Your task to perform on an android device: Open Google Maps and go to "Timeline" Image 0: 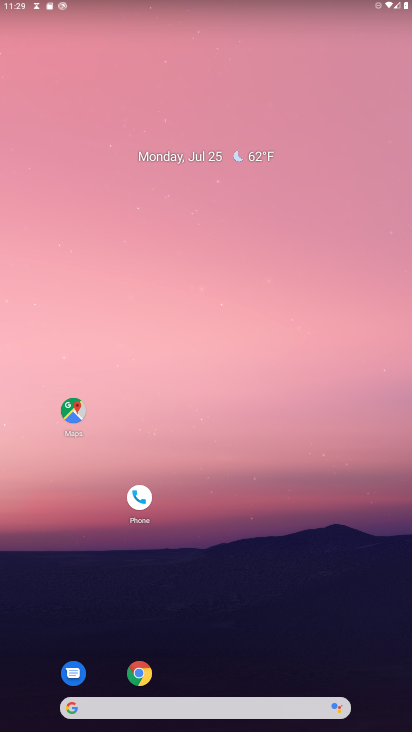
Step 0: press home button
Your task to perform on an android device: Open Google Maps and go to "Timeline" Image 1: 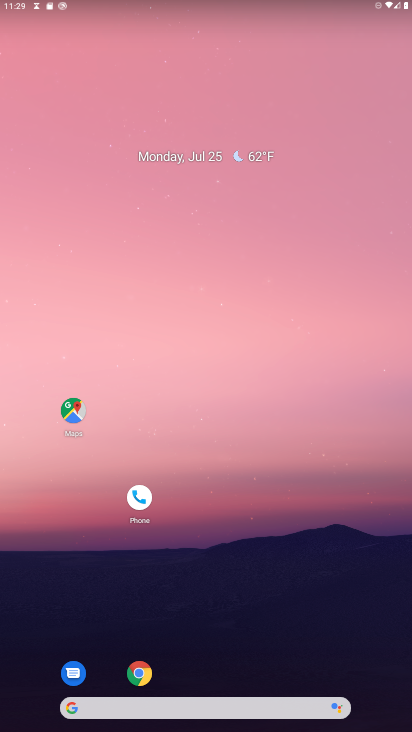
Step 1: click (76, 412)
Your task to perform on an android device: Open Google Maps and go to "Timeline" Image 2: 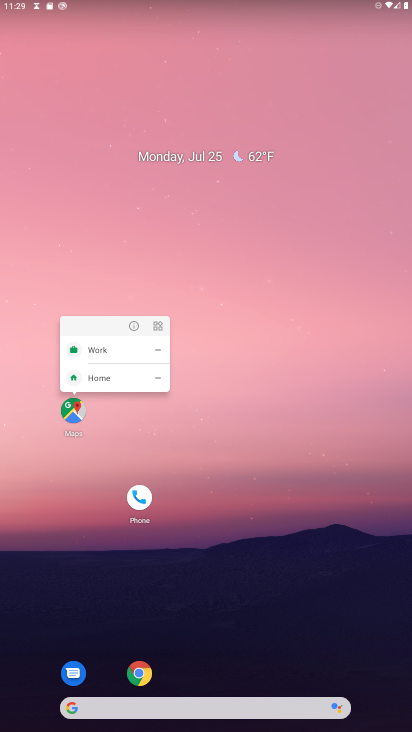
Step 2: click (71, 409)
Your task to perform on an android device: Open Google Maps and go to "Timeline" Image 3: 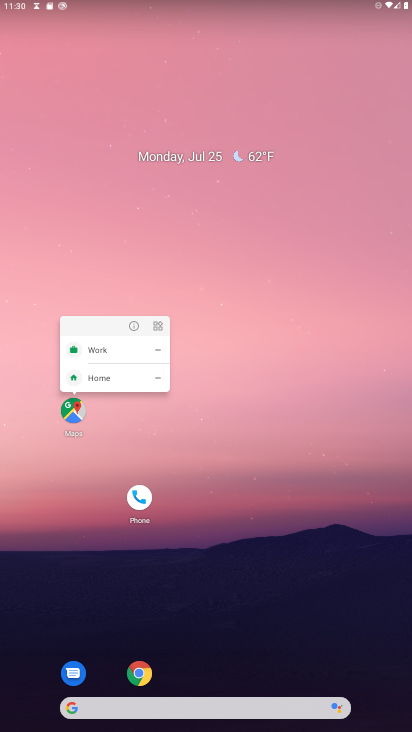
Step 3: click (75, 407)
Your task to perform on an android device: Open Google Maps and go to "Timeline" Image 4: 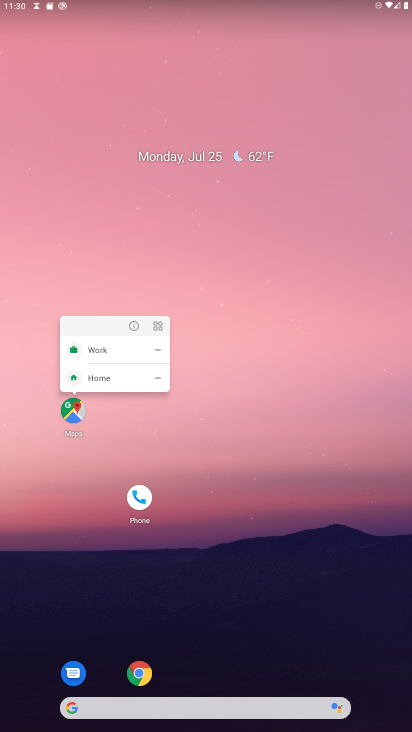
Step 4: click (59, 421)
Your task to perform on an android device: Open Google Maps and go to "Timeline" Image 5: 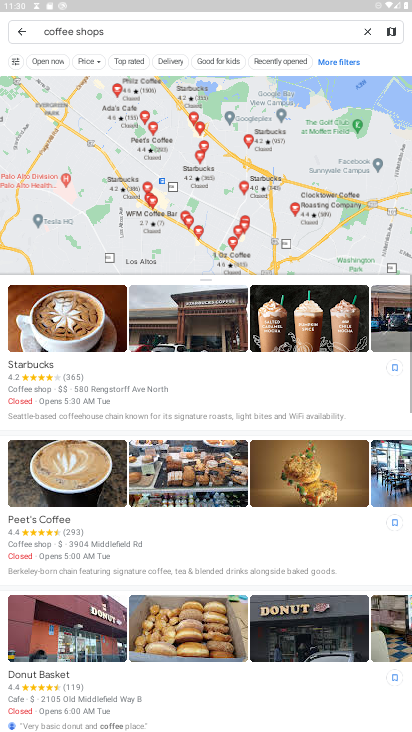
Step 5: click (18, 29)
Your task to perform on an android device: Open Google Maps and go to "Timeline" Image 6: 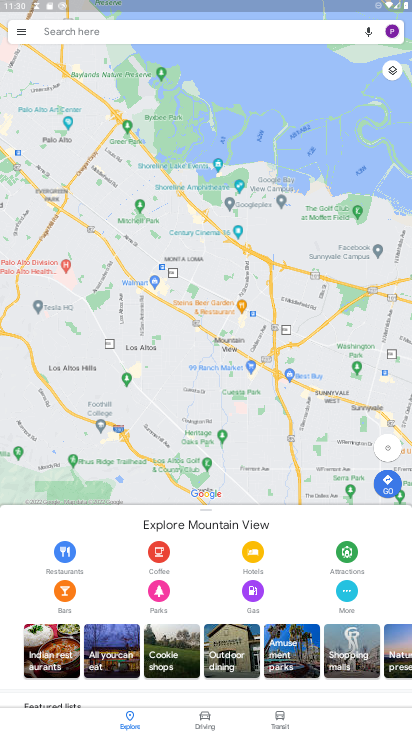
Step 6: click (12, 29)
Your task to perform on an android device: Open Google Maps and go to "Timeline" Image 7: 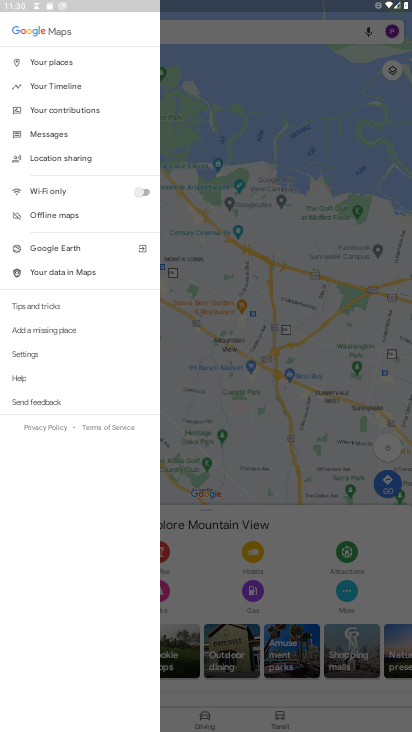
Step 7: drag from (15, 29) to (51, 85)
Your task to perform on an android device: Open Google Maps and go to "Timeline" Image 8: 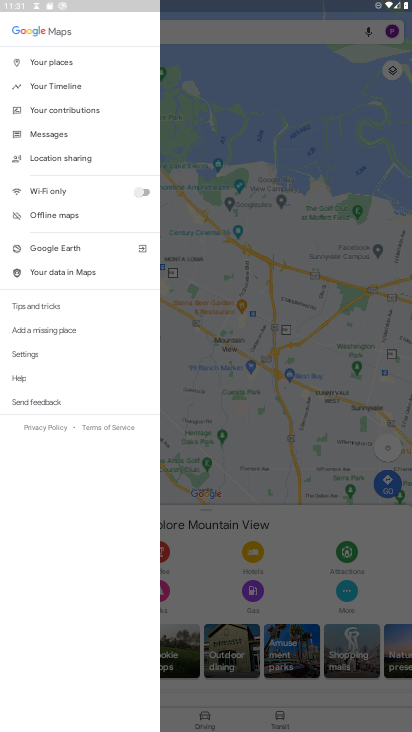
Step 8: click (32, 87)
Your task to perform on an android device: Open Google Maps and go to "Timeline" Image 9: 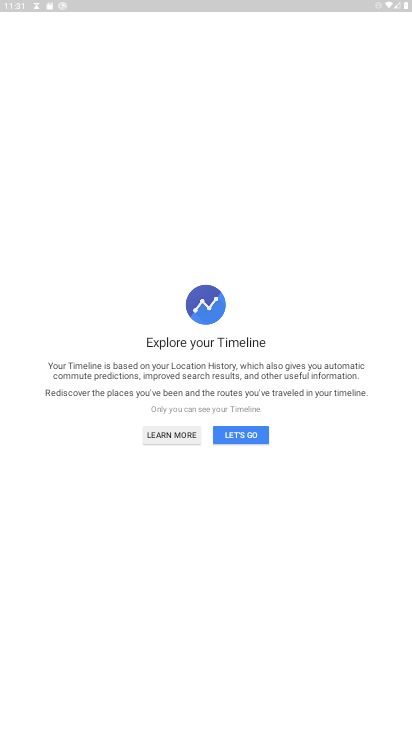
Step 9: click (238, 415)
Your task to perform on an android device: Open Google Maps and go to "Timeline" Image 10: 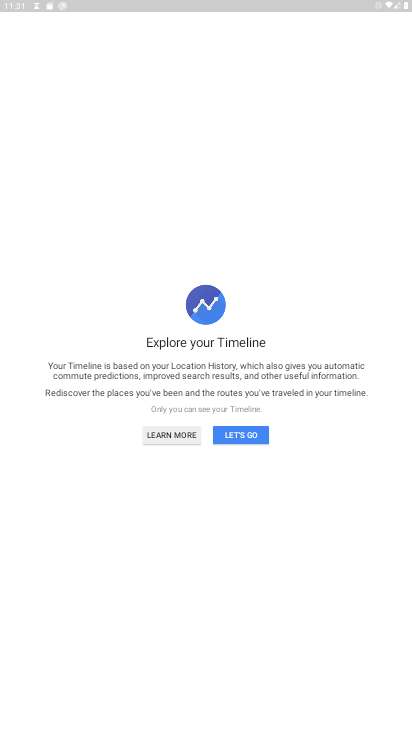
Step 10: click (242, 425)
Your task to perform on an android device: Open Google Maps and go to "Timeline" Image 11: 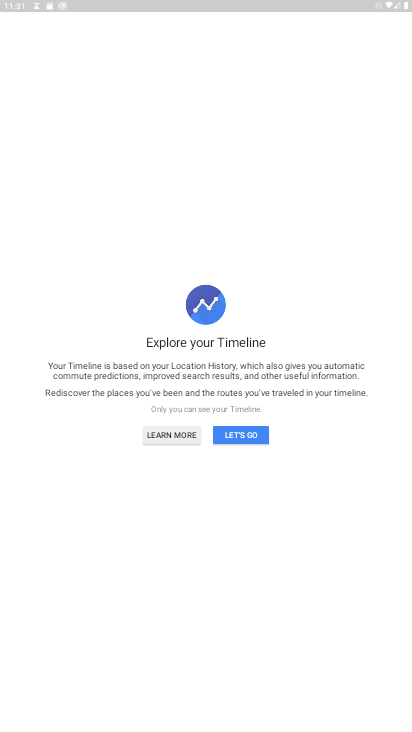
Step 11: click (249, 438)
Your task to perform on an android device: Open Google Maps and go to "Timeline" Image 12: 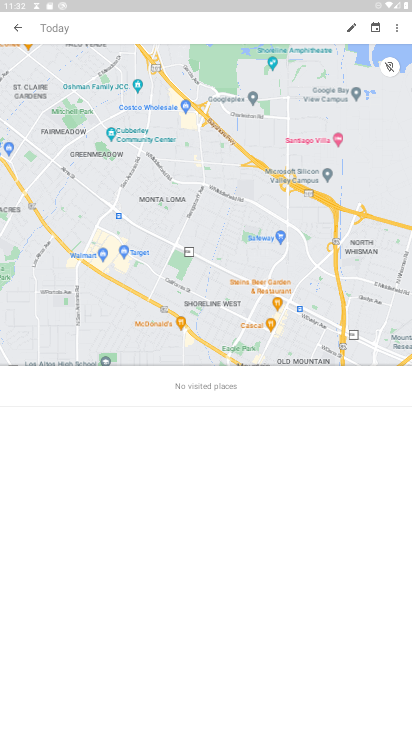
Step 12: task complete